Your task to perform on an android device: open app "Airtel Thanks" Image 0: 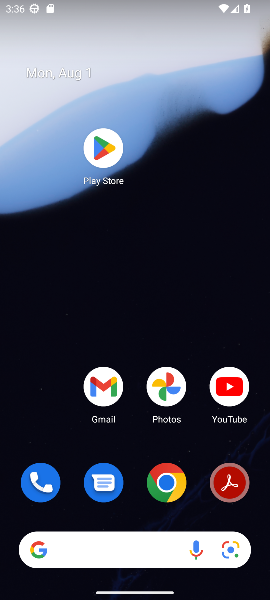
Step 0: click (105, 151)
Your task to perform on an android device: open app "Airtel Thanks" Image 1: 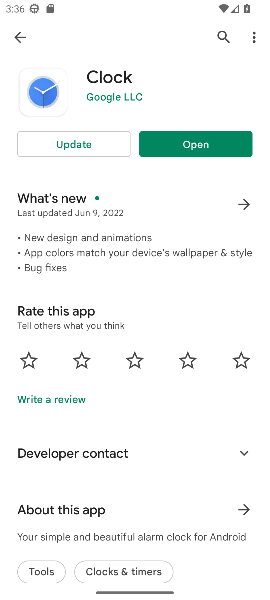
Step 1: click (220, 37)
Your task to perform on an android device: open app "Airtel Thanks" Image 2: 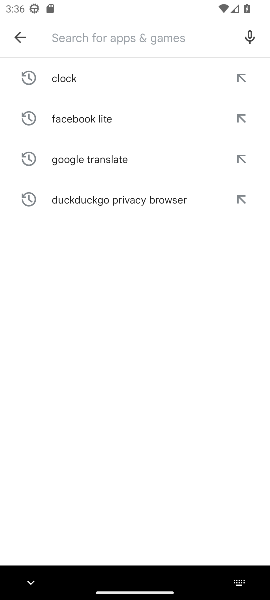
Step 2: type "Airtel Thanks]"
Your task to perform on an android device: open app "Airtel Thanks" Image 3: 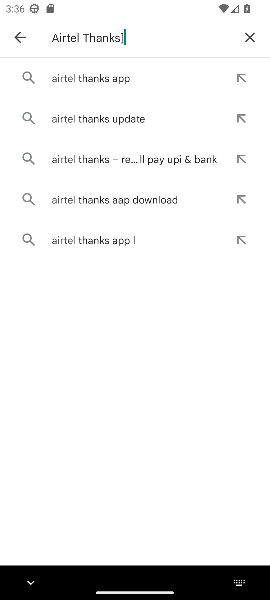
Step 3: click (244, 34)
Your task to perform on an android device: open app "Airtel Thanks" Image 4: 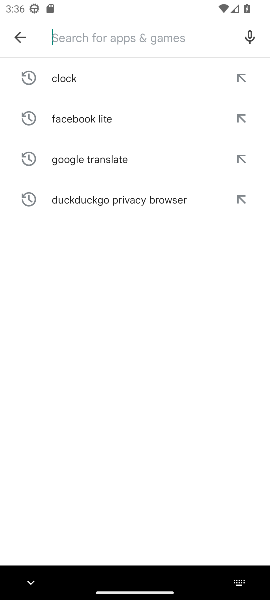
Step 4: type "Airtel Thanks"
Your task to perform on an android device: open app "Airtel Thanks" Image 5: 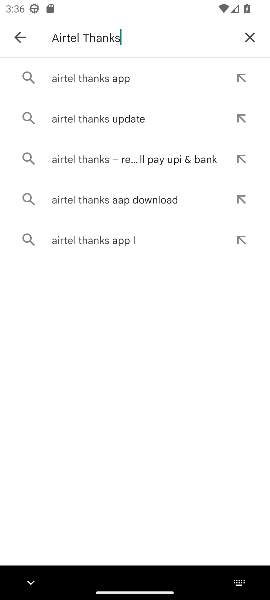
Step 5: click (91, 77)
Your task to perform on an android device: open app "Airtel Thanks" Image 6: 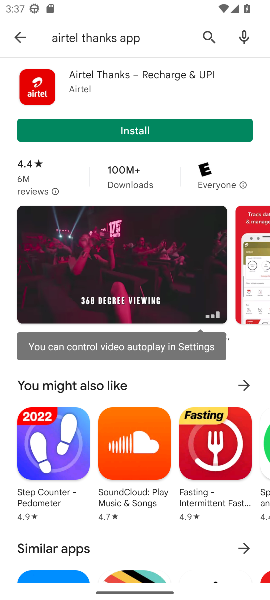
Step 6: task complete